Your task to perform on an android device: Open Chrome and go to the settings page Image 0: 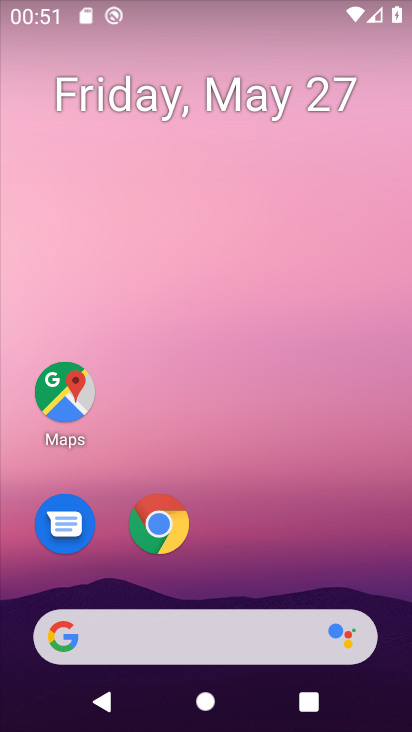
Step 0: click (172, 532)
Your task to perform on an android device: Open Chrome and go to the settings page Image 1: 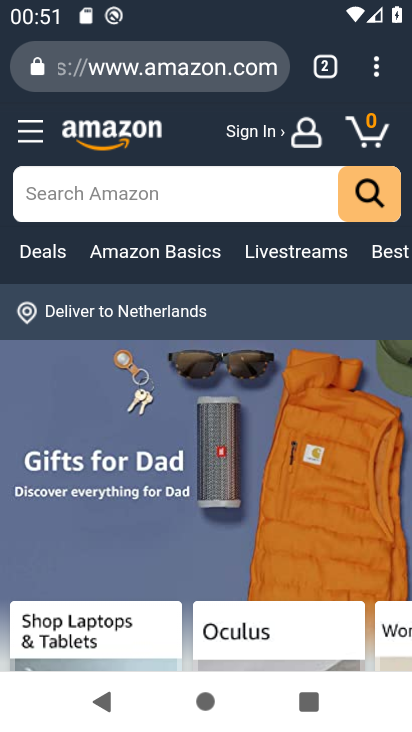
Step 1: click (370, 62)
Your task to perform on an android device: Open Chrome and go to the settings page Image 2: 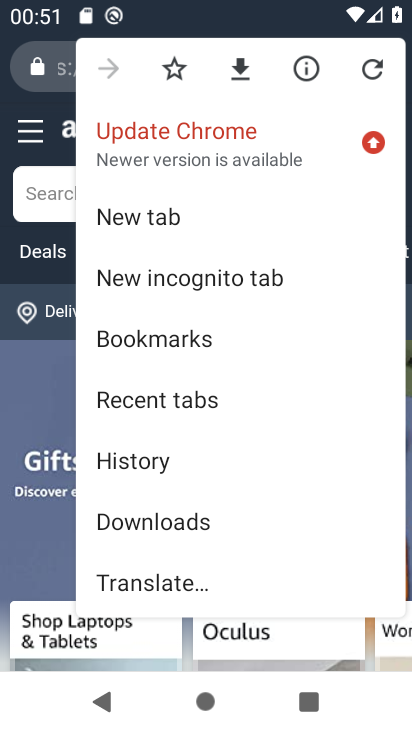
Step 2: drag from (284, 416) to (277, 167)
Your task to perform on an android device: Open Chrome and go to the settings page Image 3: 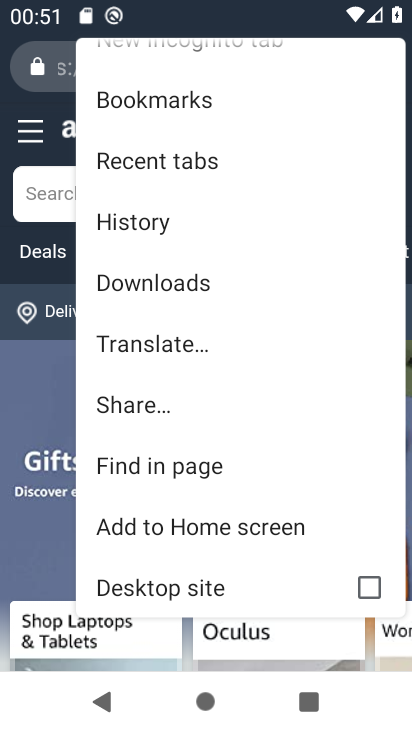
Step 3: drag from (249, 401) to (240, 137)
Your task to perform on an android device: Open Chrome and go to the settings page Image 4: 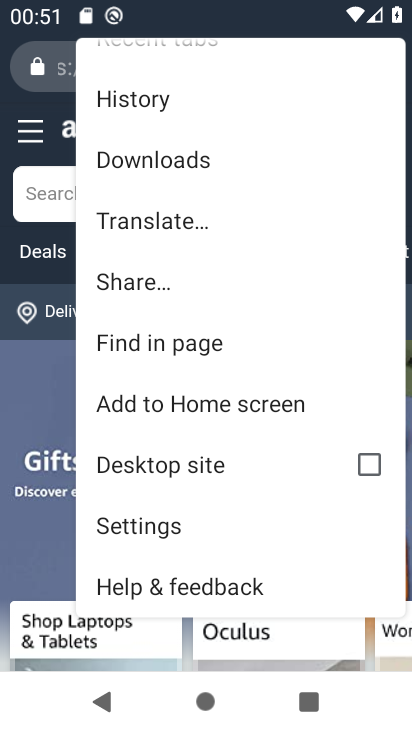
Step 4: click (176, 519)
Your task to perform on an android device: Open Chrome and go to the settings page Image 5: 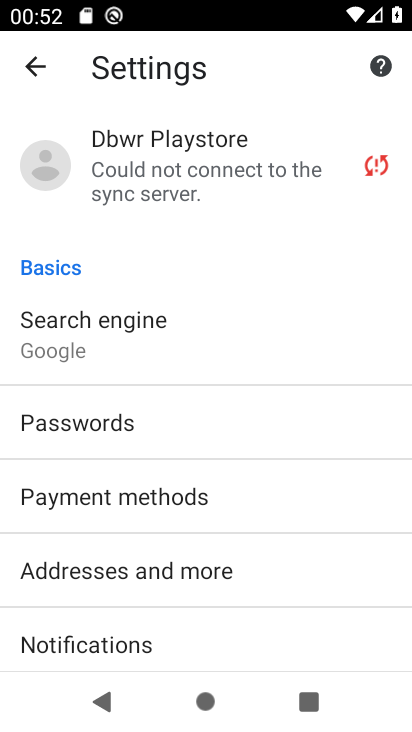
Step 5: task complete